Your task to perform on an android device: Open CNN.com Image 0: 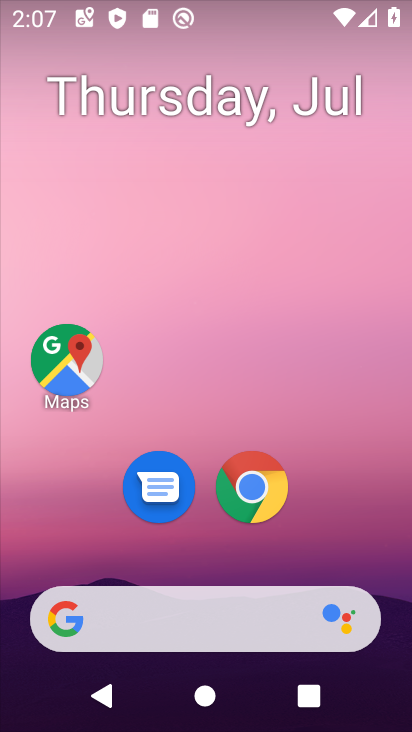
Step 0: drag from (367, 559) to (391, 237)
Your task to perform on an android device: Open CNN.com Image 1: 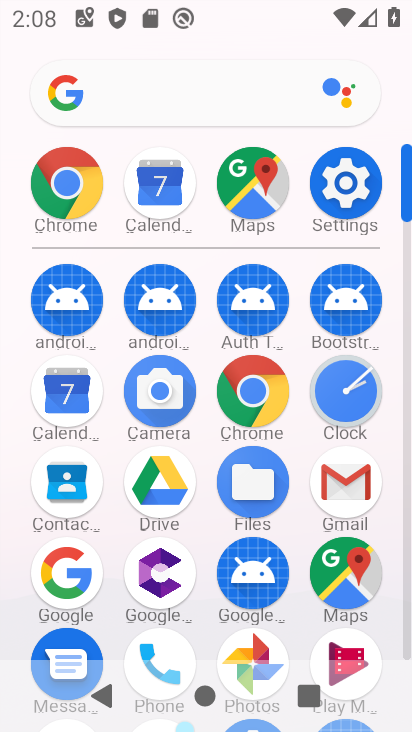
Step 1: click (276, 404)
Your task to perform on an android device: Open CNN.com Image 2: 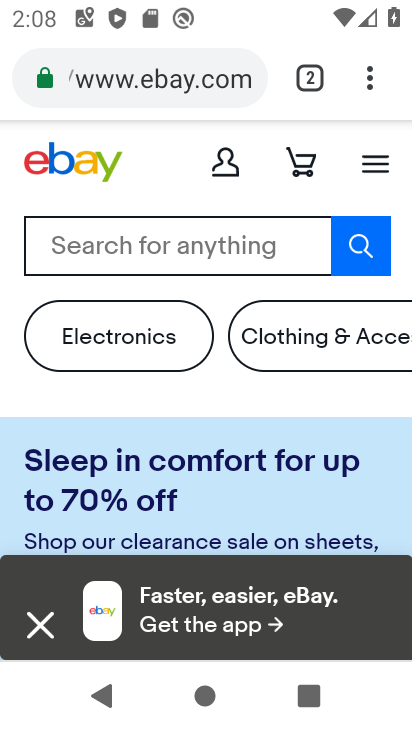
Step 2: click (215, 92)
Your task to perform on an android device: Open CNN.com Image 3: 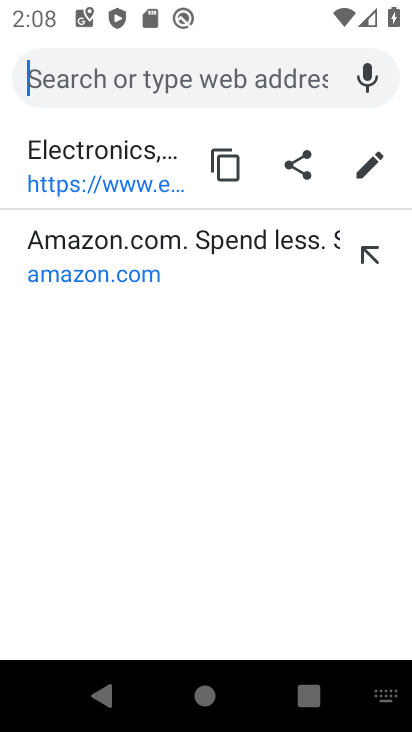
Step 3: type "cnn.com"
Your task to perform on an android device: Open CNN.com Image 4: 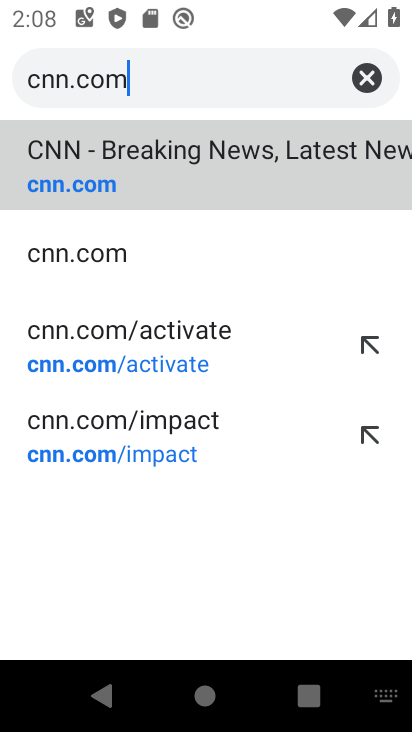
Step 4: click (271, 189)
Your task to perform on an android device: Open CNN.com Image 5: 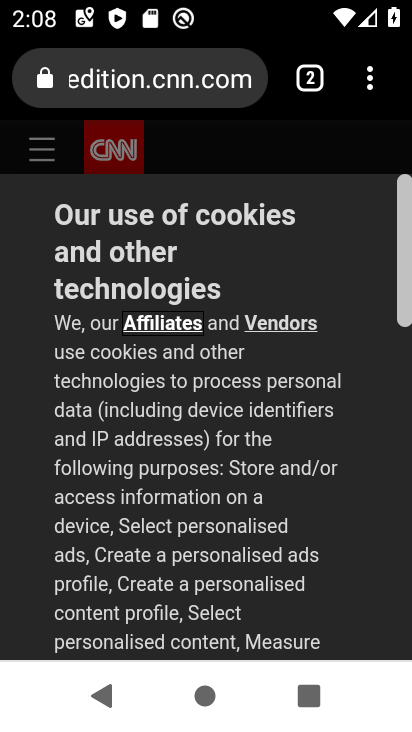
Step 5: task complete